Your task to perform on an android device: Open Google Chrome and click the shortcut for Amazon.com Image 0: 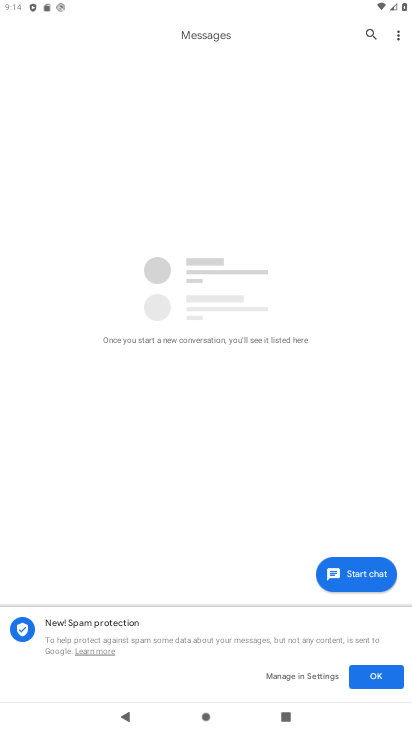
Step 0: press home button
Your task to perform on an android device: Open Google Chrome and click the shortcut for Amazon.com Image 1: 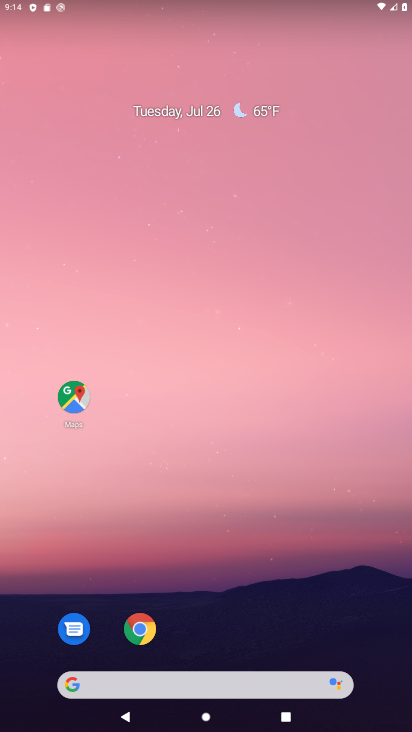
Step 1: drag from (302, 634) to (223, 8)
Your task to perform on an android device: Open Google Chrome and click the shortcut for Amazon.com Image 2: 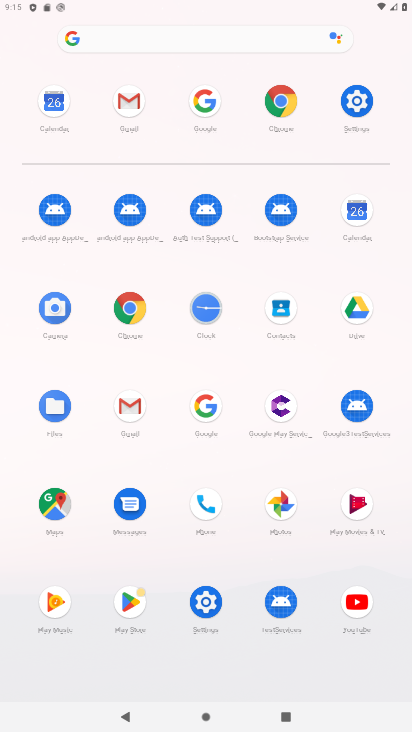
Step 2: click (285, 99)
Your task to perform on an android device: Open Google Chrome and click the shortcut for Amazon.com Image 3: 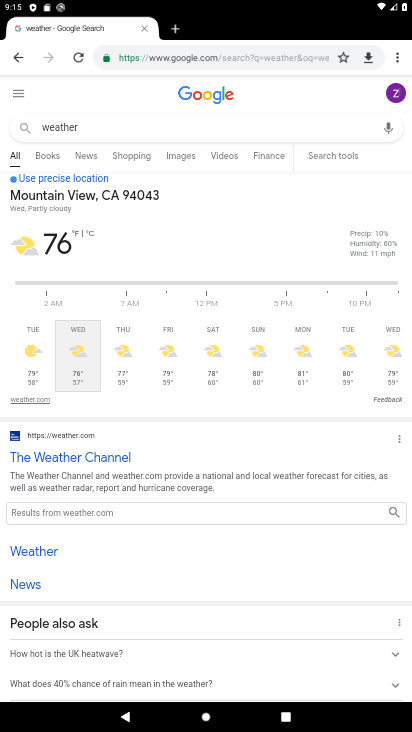
Step 3: click (179, 26)
Your task to perform on an android device: Open Google Chrome and click the shortcut for Amazon.com Image 4: 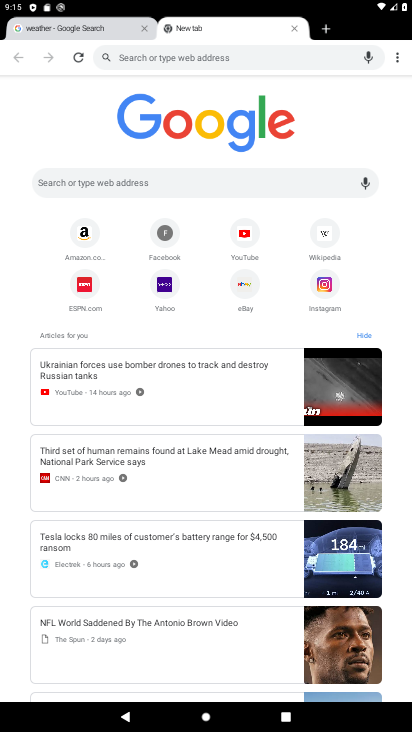
Step 4: click (88, 225)
Your task to perform on an android device: Open Google Chrome and click the shortcut for Amazon.com Image 5: 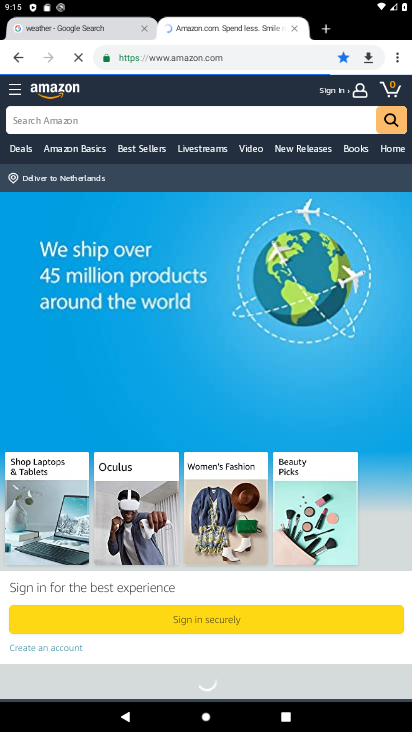
Step 5: task complete